Your task to perform on an android device: Open calendar and show me the first week of next month Image 0: 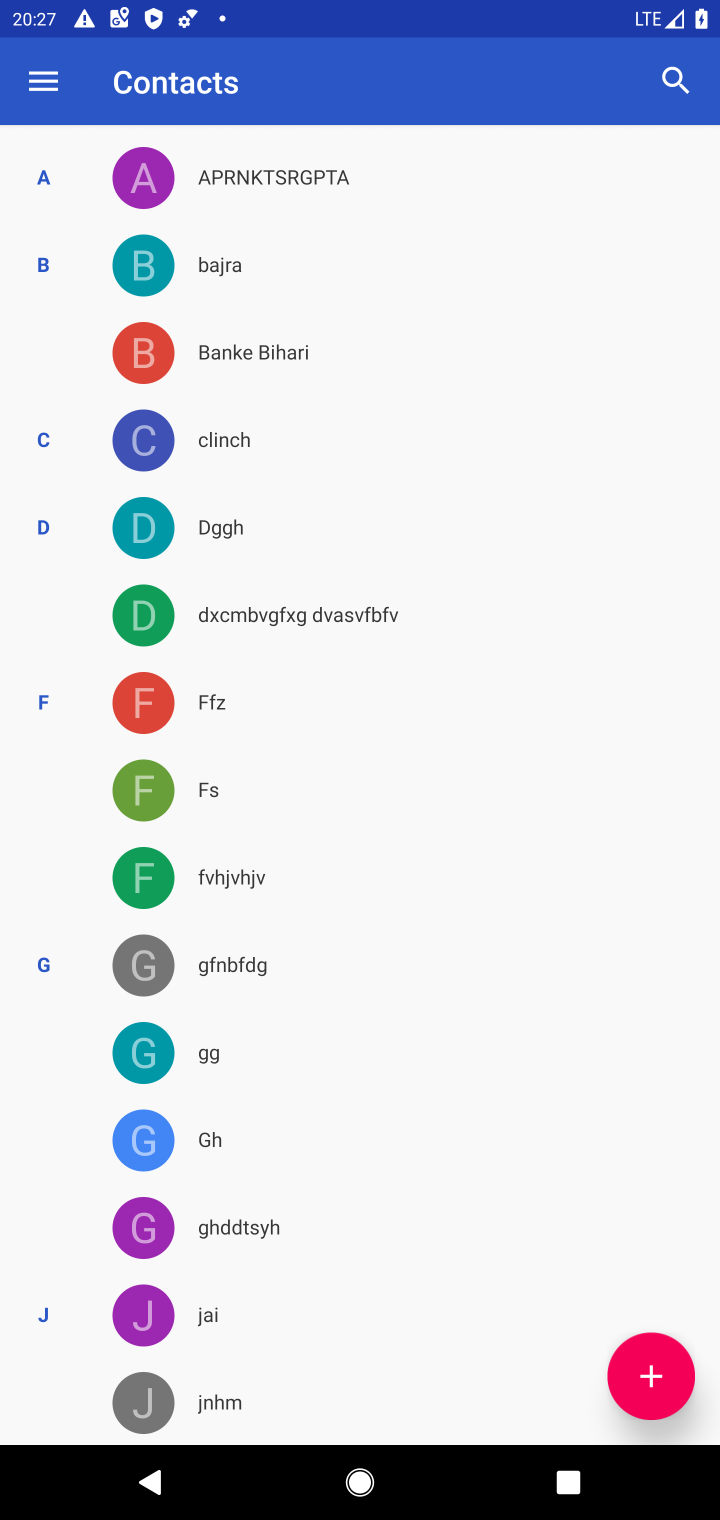
Step 0: press home button
Your task to perform on an android device: Open calendar and show me the first week of next month Image 1: 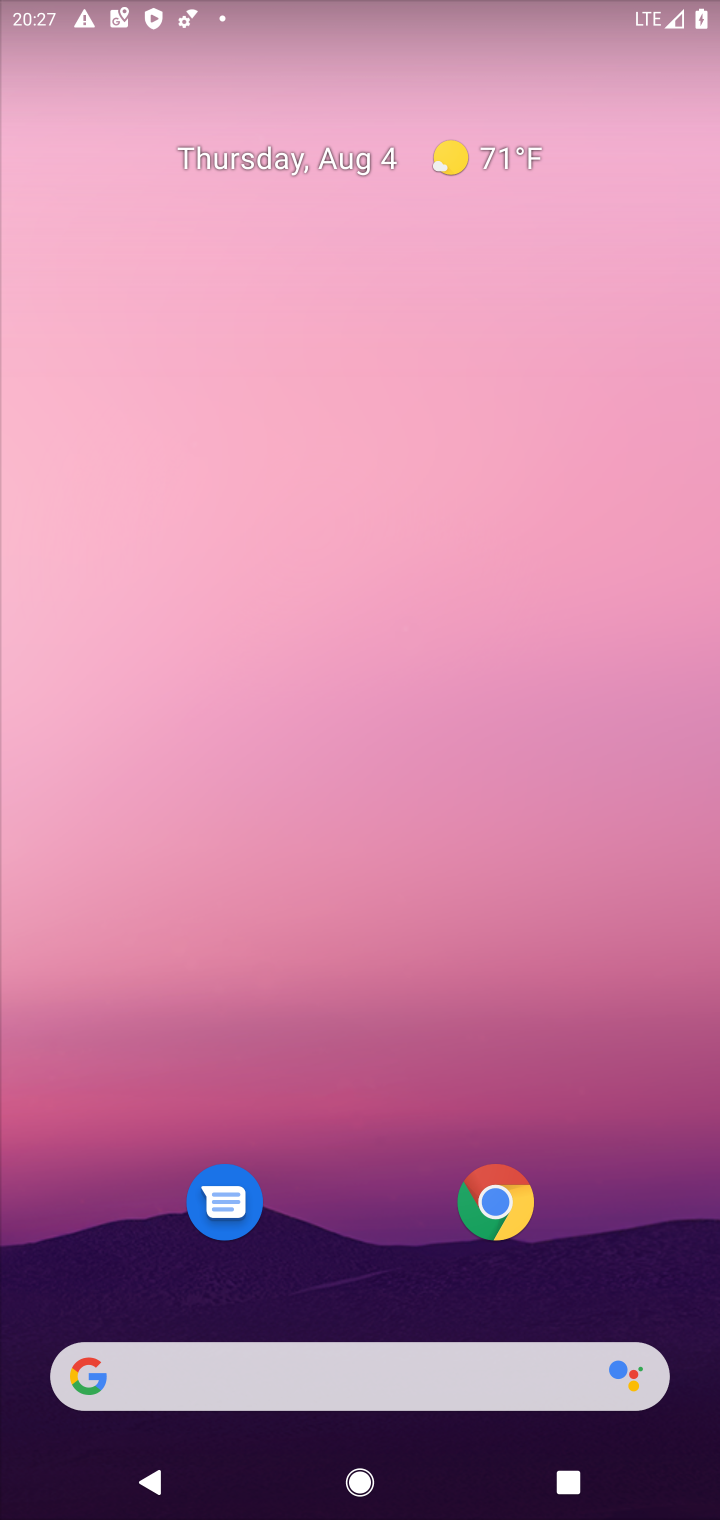
Step 1: drag from (350, 1000) to (346, 247)
Your task to perform on an android device: Open calendar and show me the first week of next month Image 2: 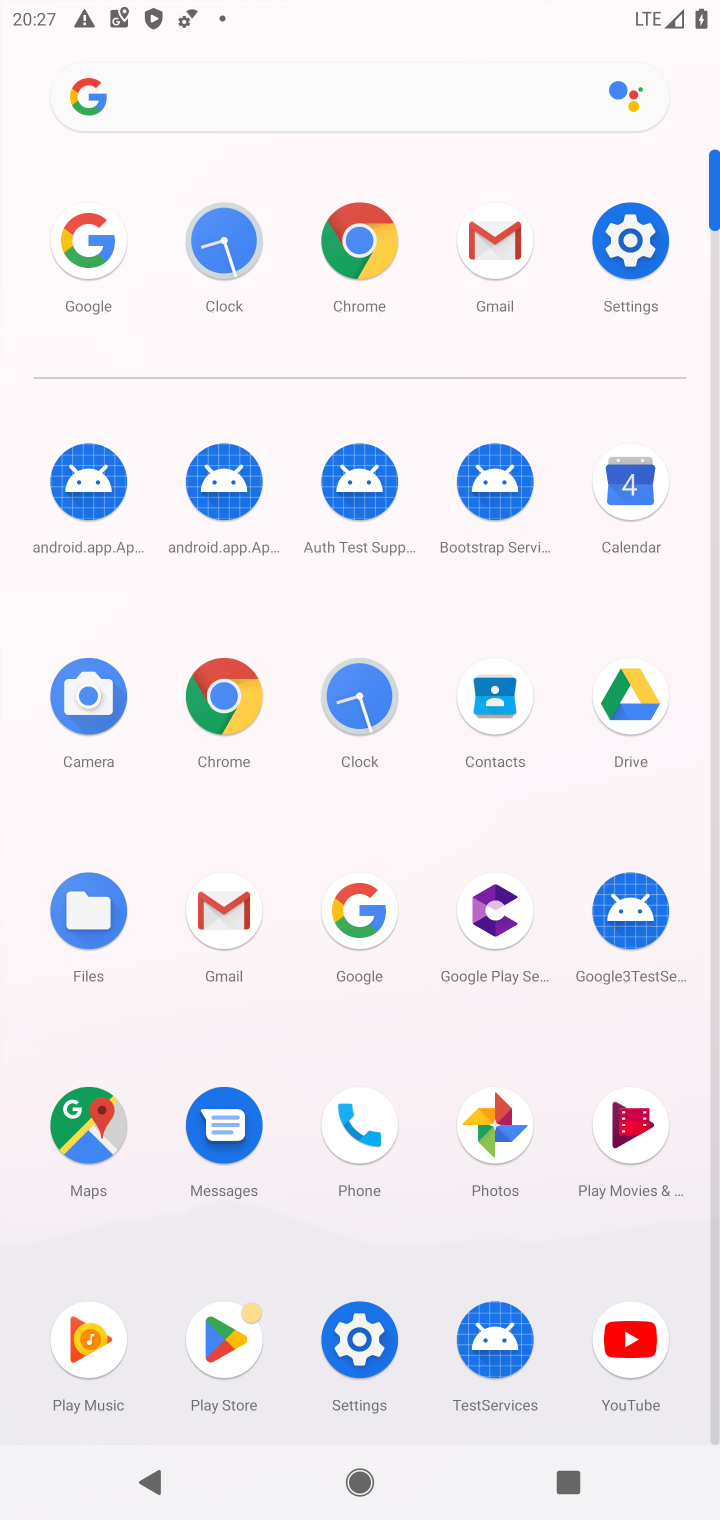
Step 2: click (639, 507)
Your task to perform on an android device: Open calendar and show me the first week of next month Image 3: 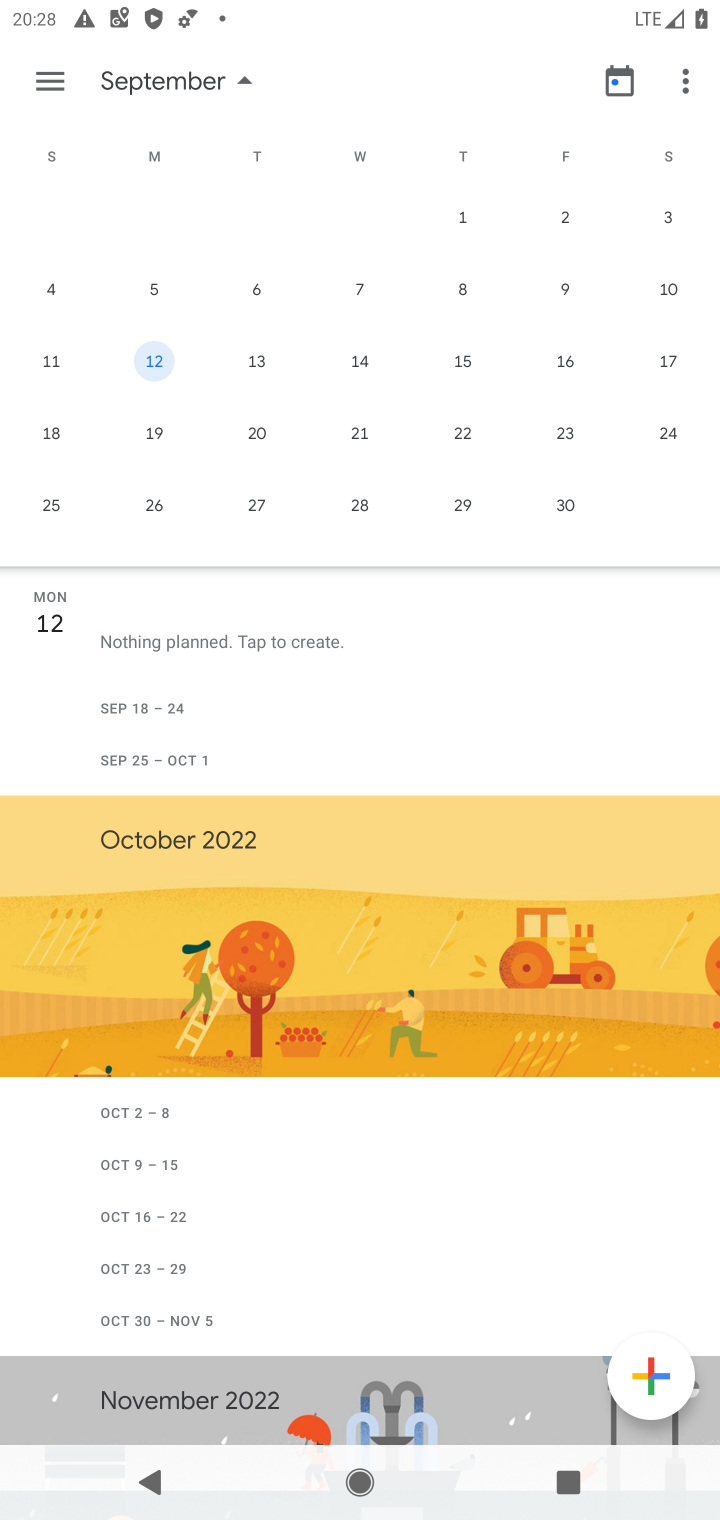
Step 3: click (463, 237)
Your task to perform on an android device: Open calendar and show me the first week of next month Image 4: 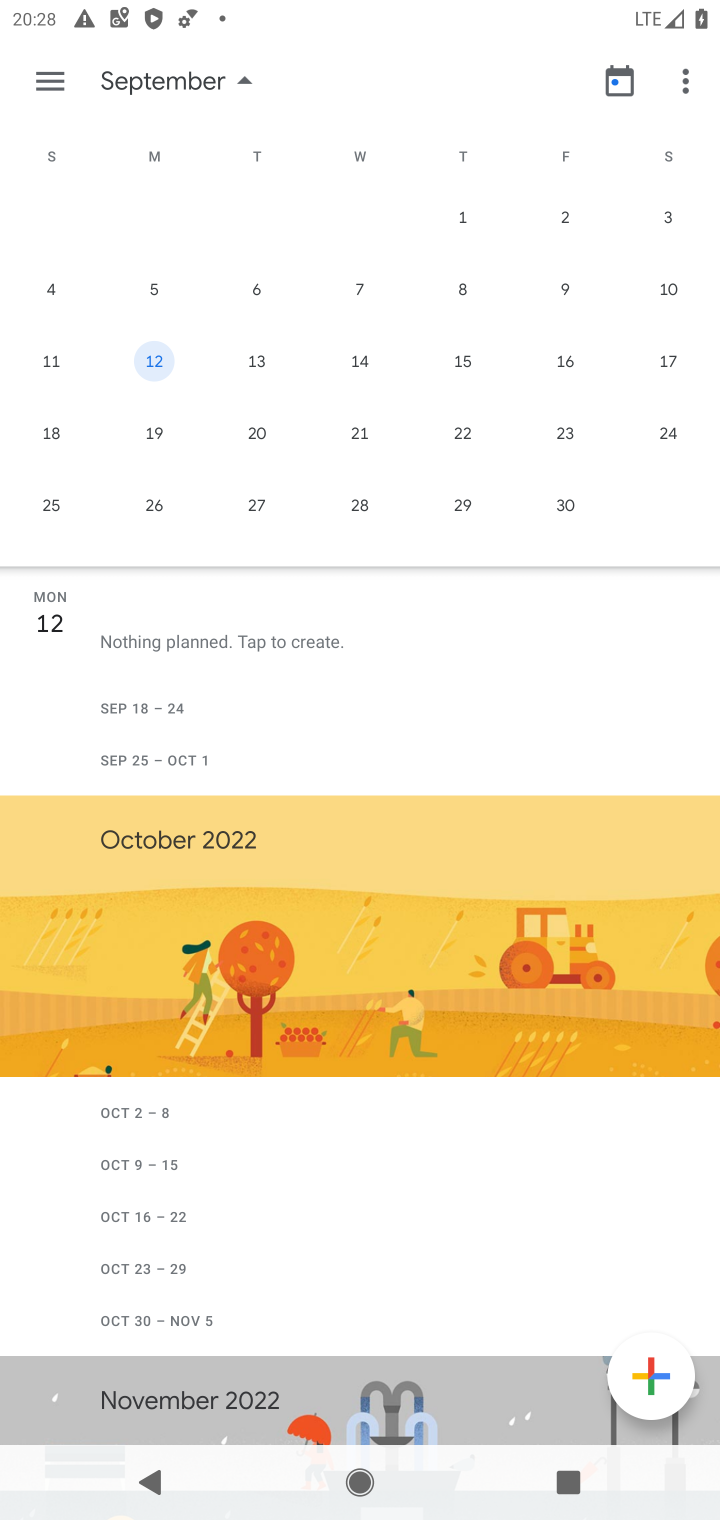
Step 4: click (426, 208)
Your task to perform on an android device: Open calendar and show me the first week of next month Image 5: 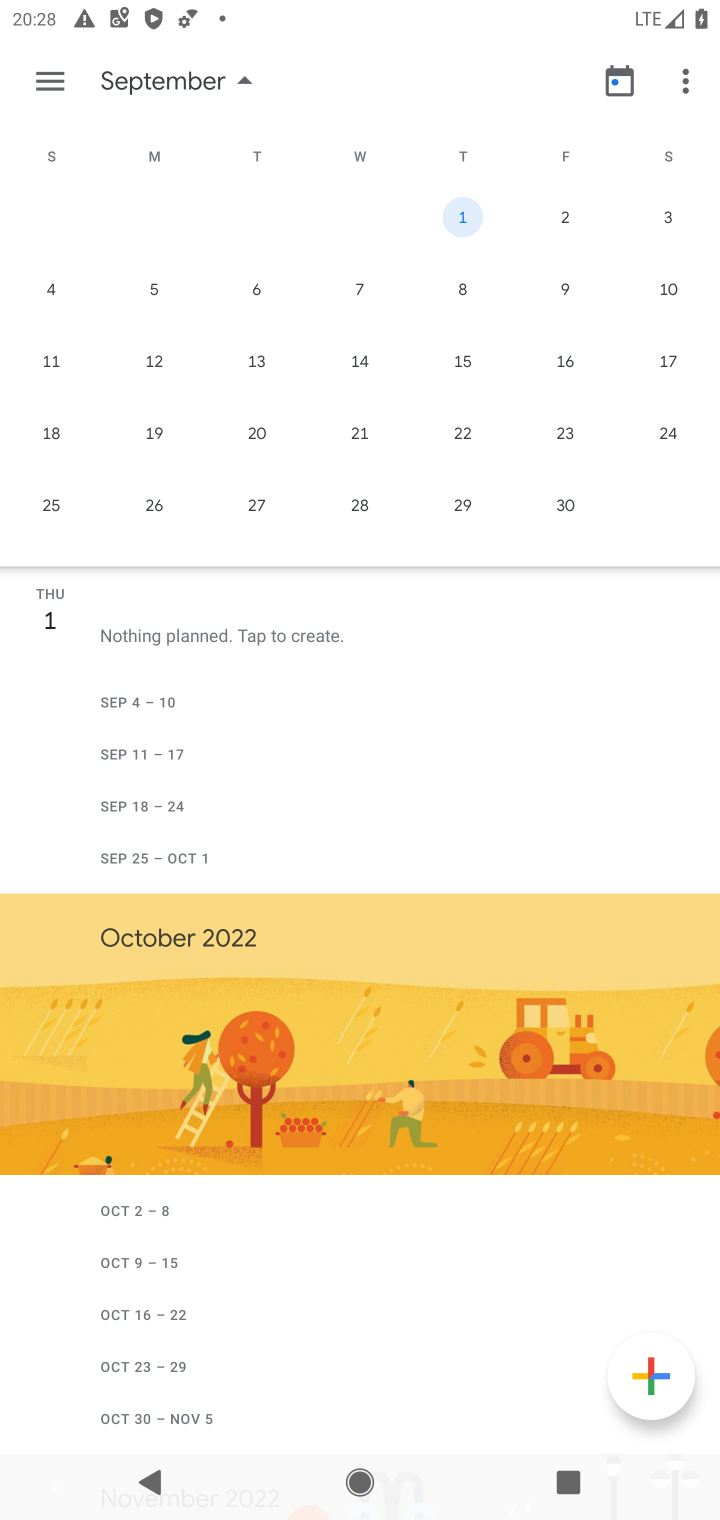
Step 5: task complete